Your task to perform on an android device: change the upload size in google photos Image 0: 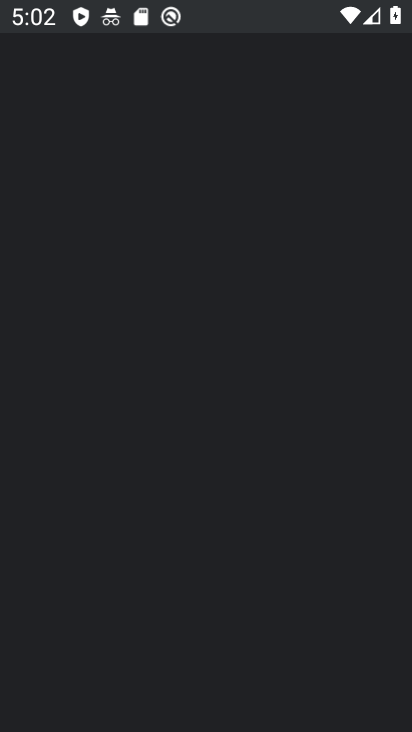
Step 0: click (268, 570)
Your task to perform on an android device: change the upload size in google photos Image 1: 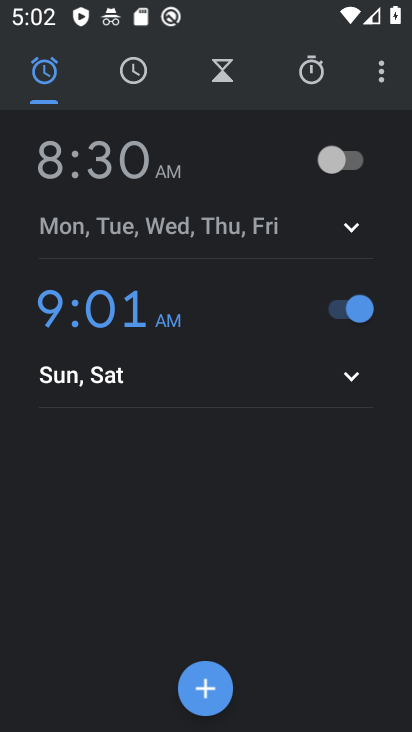
Step 1: press home button
Your task to perform on an android device: change the upload size in google photos Image 2: 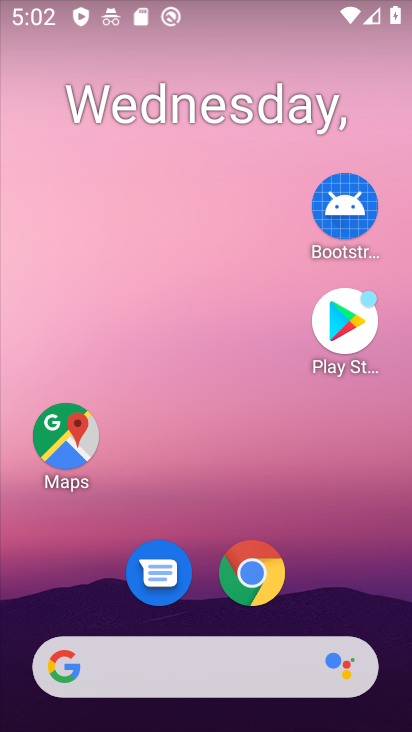
Step 2: drag from (339, 556) to (303, 188)
Your task to perform on an android device: change the upload size in google photos Image 3: 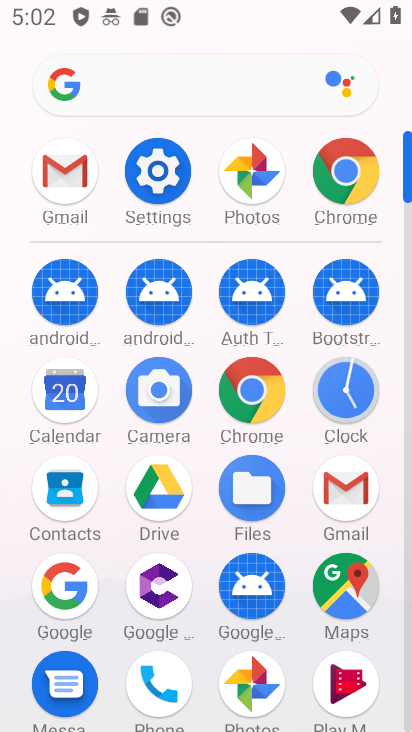
Step 3: click (350, 386)
Your task to perform on an android device: change the upload size in google photos Image 4: 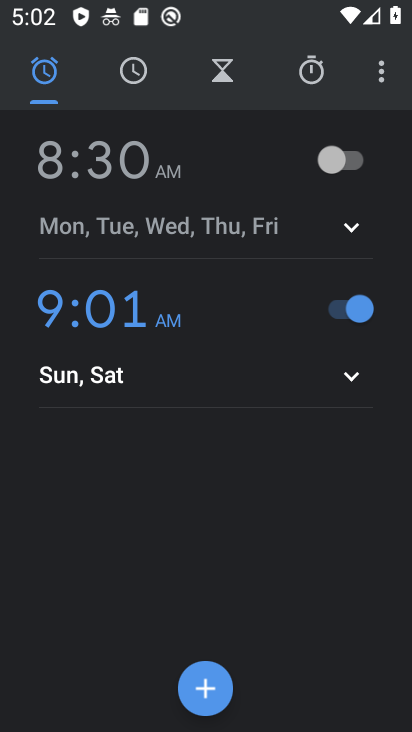
Step 4: press home button
Your task to perform on an android device: change the upload size in google photos Image 5: 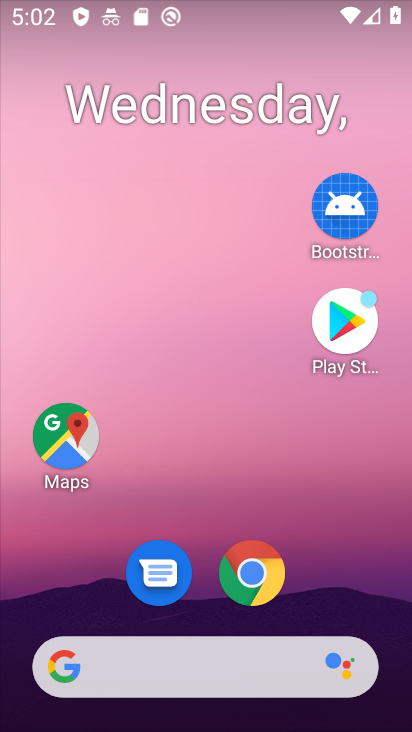
Step 5: drag from (253, 264) to (267, 102)
Your task to perform on an android device: change the upload size in google photos Image 6: 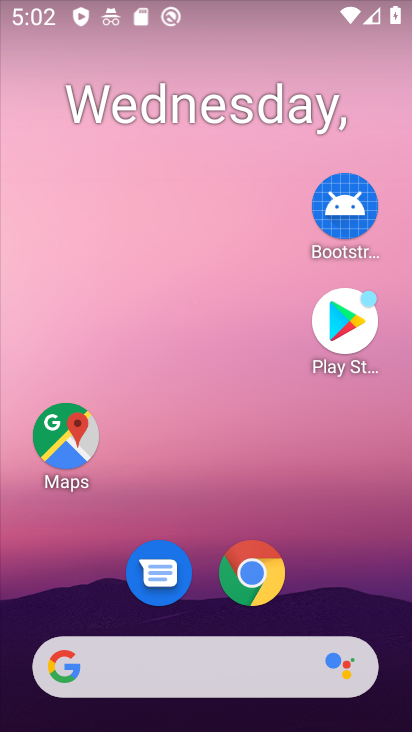
Step 6: drag from (274, 499) to (317, 98)
Your task to perform on an android device: change the upload size in google photos Image 7: 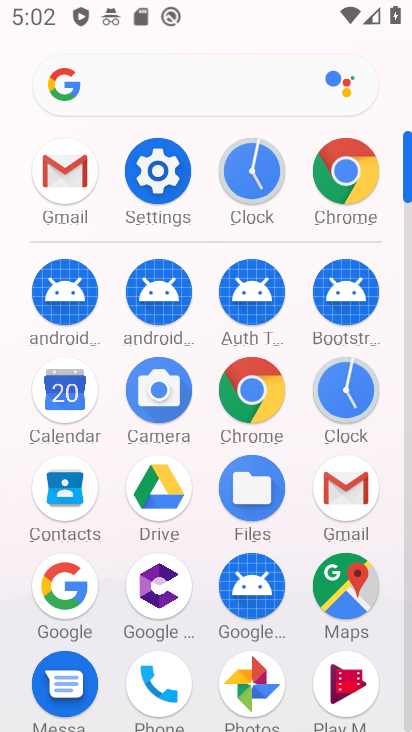
Step 7: click (241, 663)
Your task to perform on an android device: change the upload size in google photos Image 8: 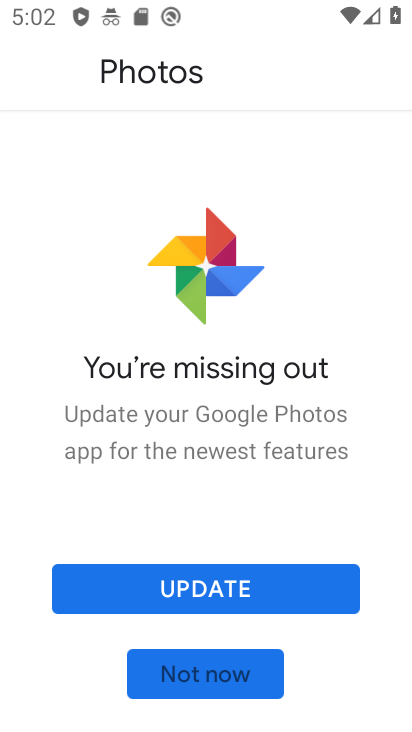
Step 8: click (211, 588)
Your task to perform on an android device: change the upload size in google photos Image 9: 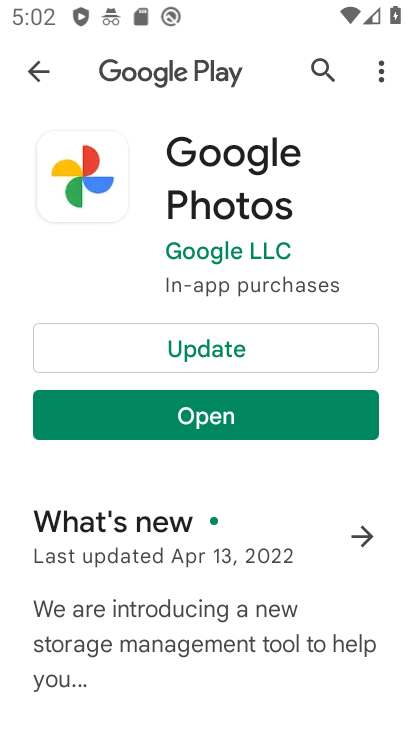
Step 9: click (209, 358)
Your task to perform on an android device: change the upload size in google photos Image 10: 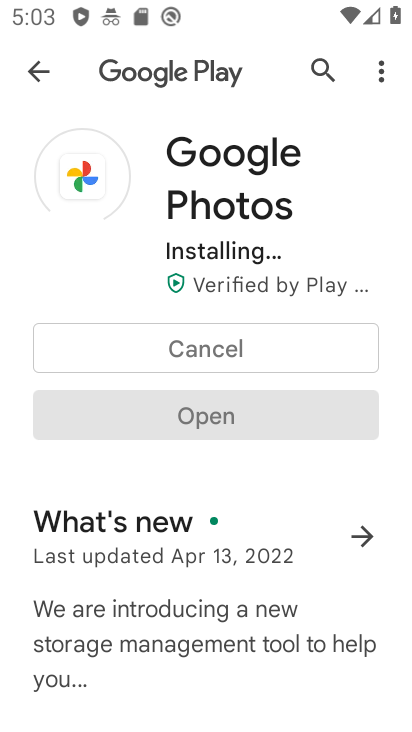
Step 10: drag from (234, 597) to (270, 706)
Your task to perform on an android device: change the upload size in google photos Image 11: 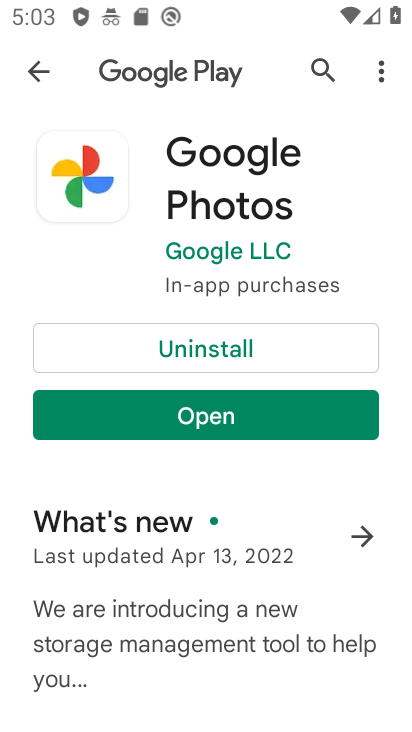
Step 11: click (173, 411)
Your task to perform on an android device: change the upload size in google photos Image 12: 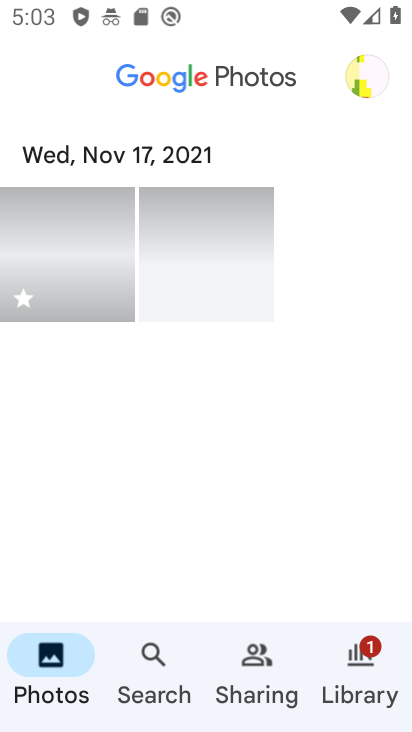
Step 12: click (364, 65)
Your task to perform on an android device: change the upload size in google photos Image 13: 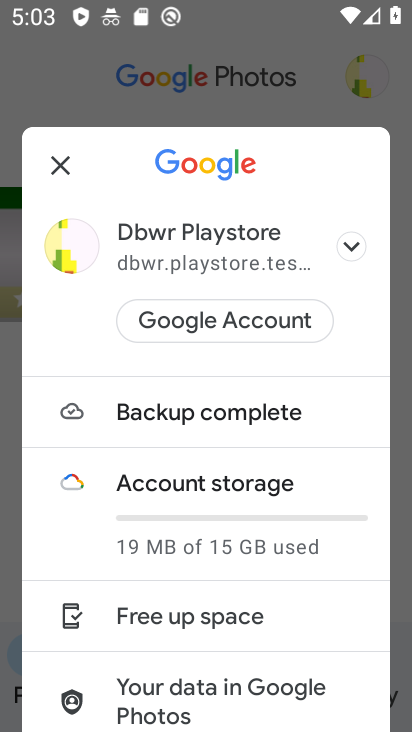
Step 13: drag from (196, 681) to (214, 418)
Your task to perform on an android device: change the upload size in google photos Image 14: 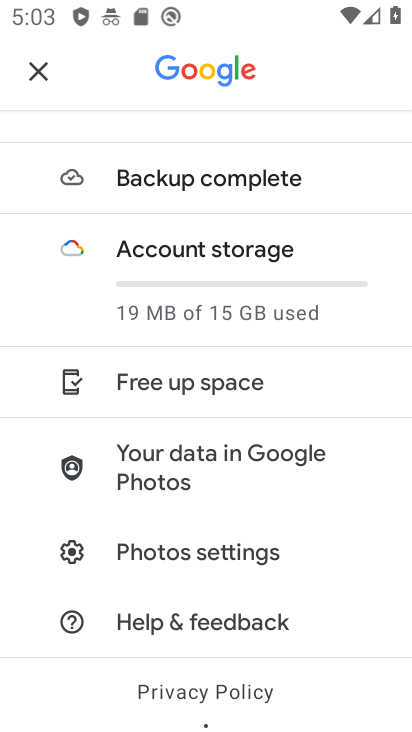
Step 14: click (183, 561)
Your task to perform on an android device: change the upload size in google photos Image 15: 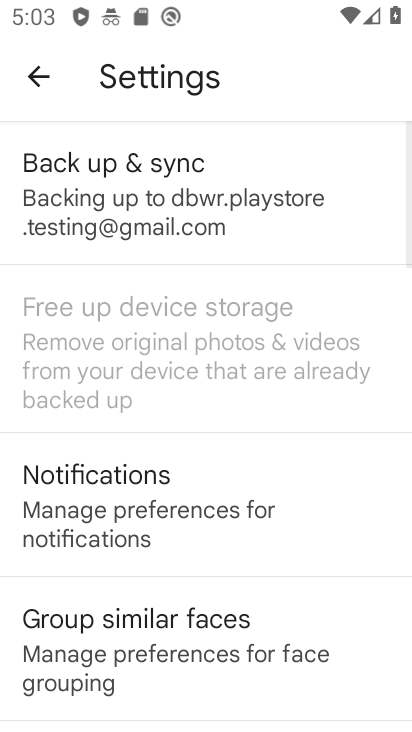
Step 15: drag from (175, 520) to (183, 731)
Your task to perform on an android device: change the upload size in google photos Image 16: 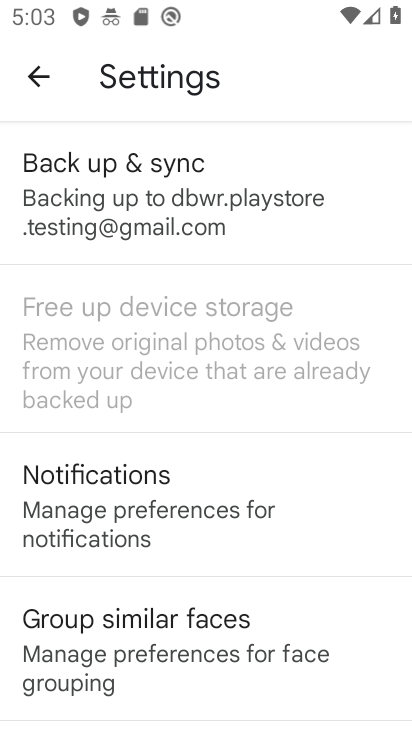
Step 16: drag from (205, 629) to (294, 337)
Your task to perform on an android device: change the upload size in google photos Image 17: 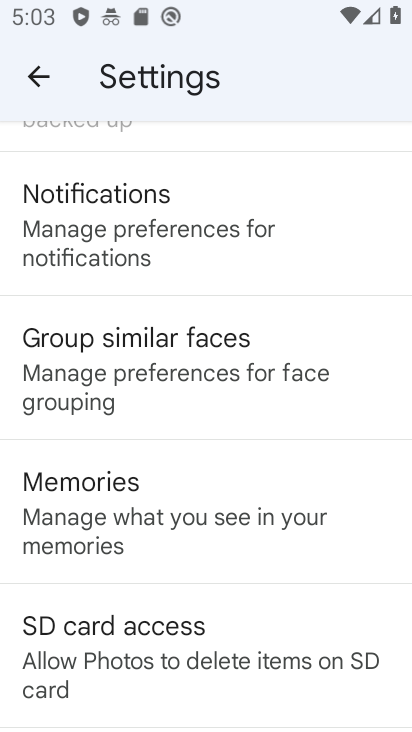
Step 17: drag from (294, 516) to (214, 710)
Your task to perform on an android device: change the upload size in google photos Image 18: 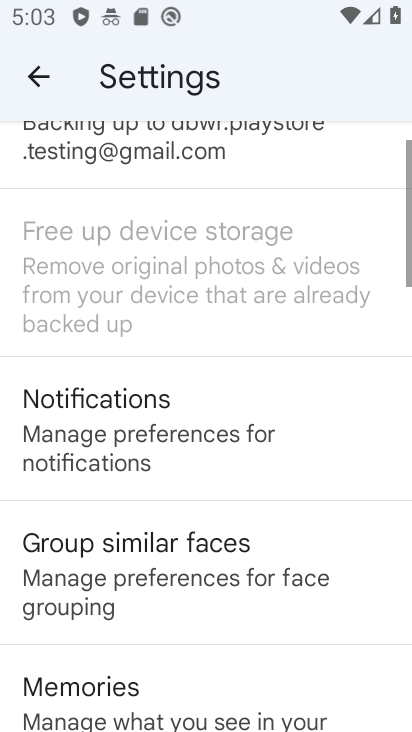
Step 18: drag from (152, 281) to (131, 699)
Your task to perform on an android device: change the upload size in google photos Image 19: 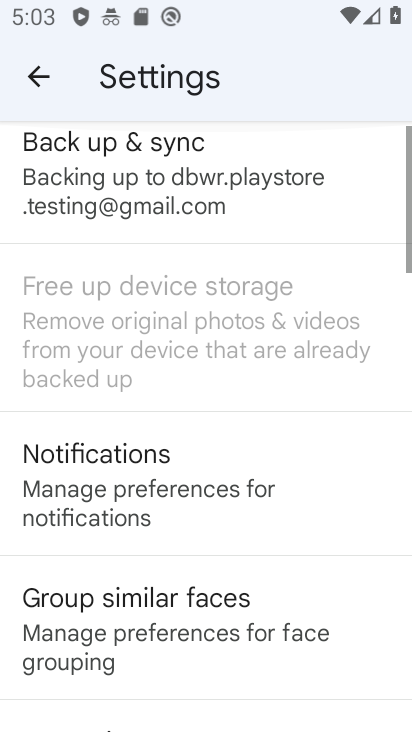
Step 19: click (102, 216)
Your task to perform on an android device: change the upload size in google photos Image 20: 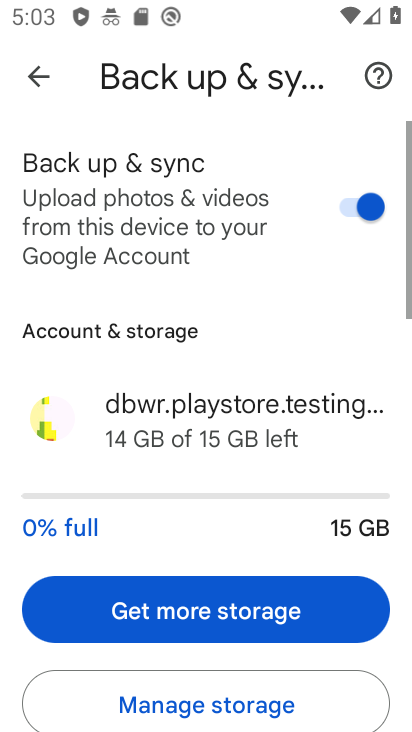
Step 20: drag from (259, 505) to (286, 136)
Your task to perform on an android device: change the upload size in google photos Image 21: 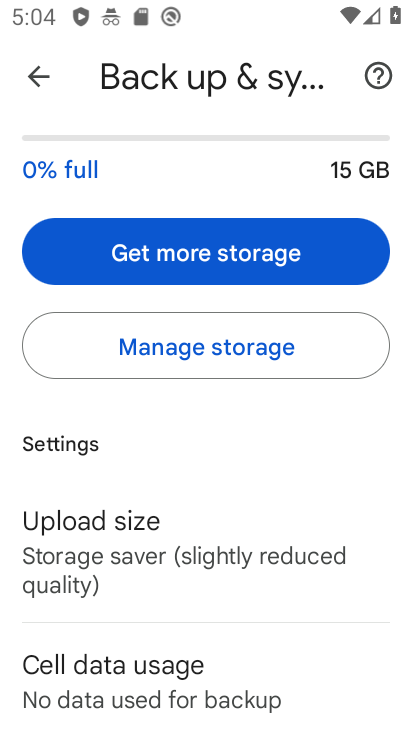
Step 21: click (140, 529)
Your task to perform on an android device: change the upload size in google photos Image 22: 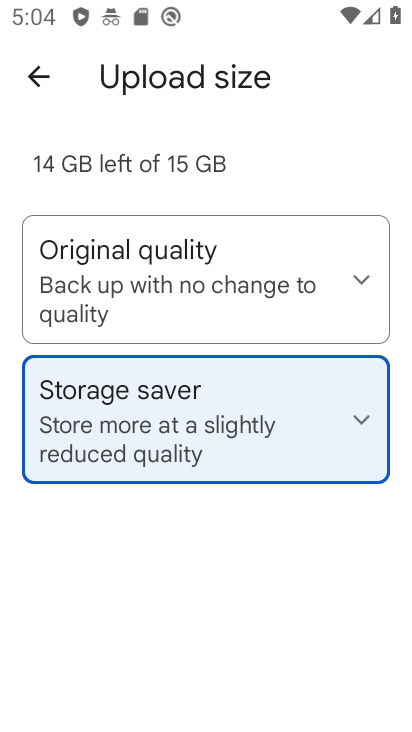
Step 22: click (263, 302)
Your task to perform on an android device: change the upload size in google photos Image 23: 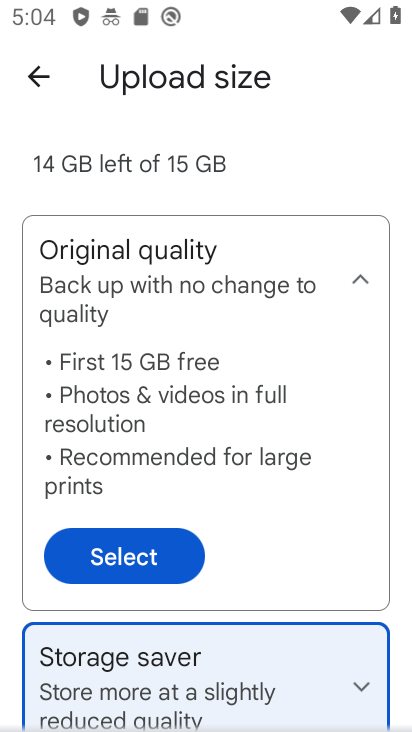
Step 23: click (173, 564)
Your task to perform on an android device: change the upload size in google photos Image 24: 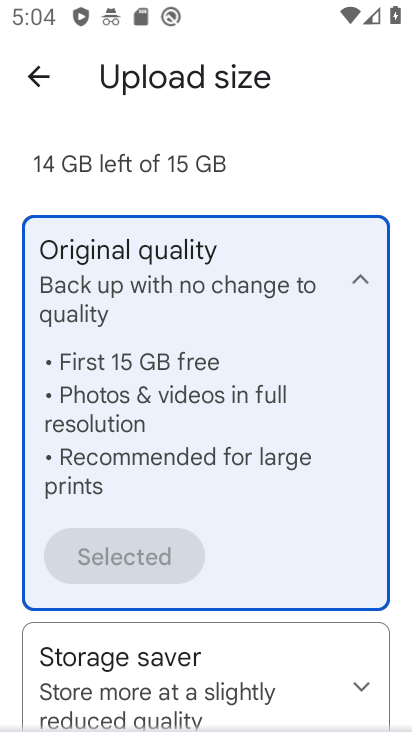
Step 24: task complete